Your task to perform on an android device: turn on translation in the chrome app Image 0: 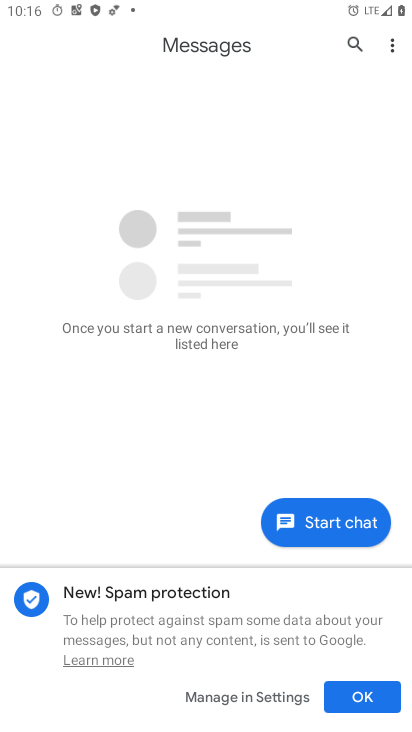
Step 0: press home button
Your task to perform on an android device: turn on translation in the chrome app Image 1: 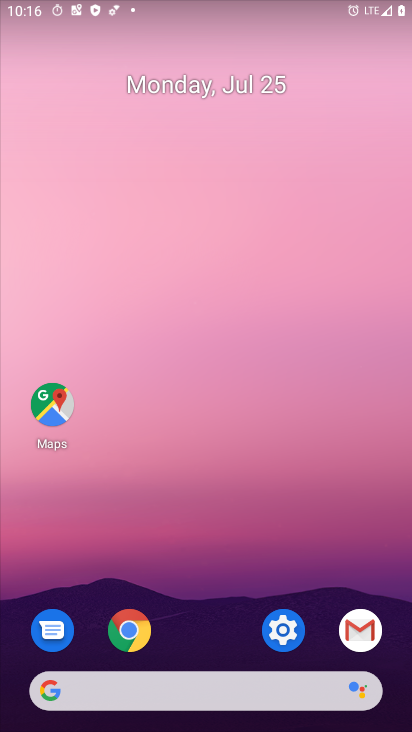
Step 1: click (140, 619)
Your task to perform on an android device: turn on translation in the chrome app Image 2: 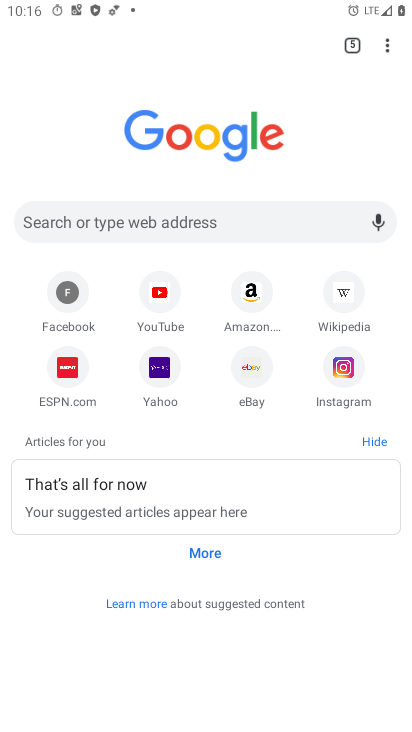
Step 2: click (393, 57)
Your task to perform on an android device: turn on translation in the chrome app Image 3: 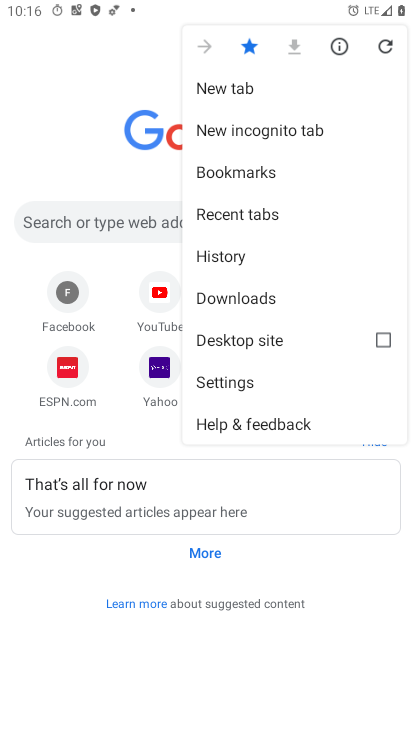
Step 3: click (230, 376)
Your task to perform on an android device: turn on translation in the chrome app Image 4: 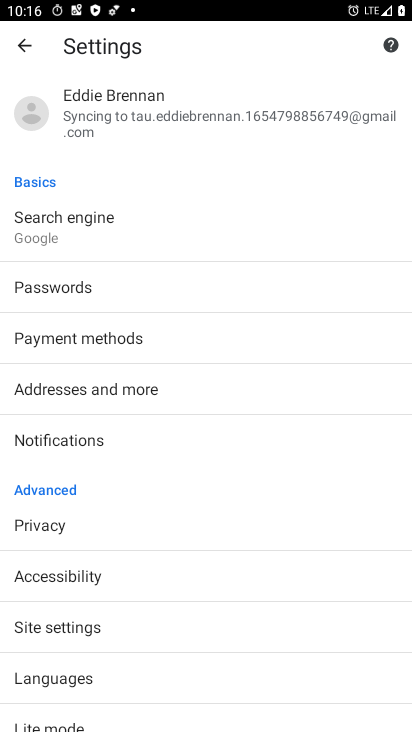
Step 4: click (79, 671)
Your task to perform on an android device: turn on translation in the chrome app Image 5: 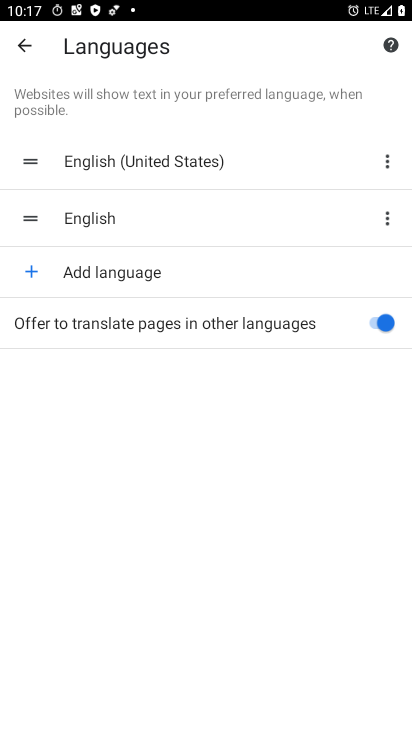
Step 5: task complete